Your task to perform on an android device: Open Wikipedia Image 0: 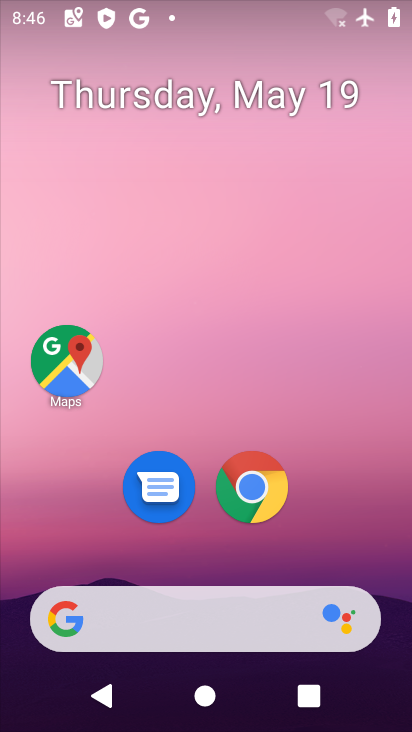
Step 0: click (247, 504)
Your task to perform on an android device: Open Wikipedia Image 1: 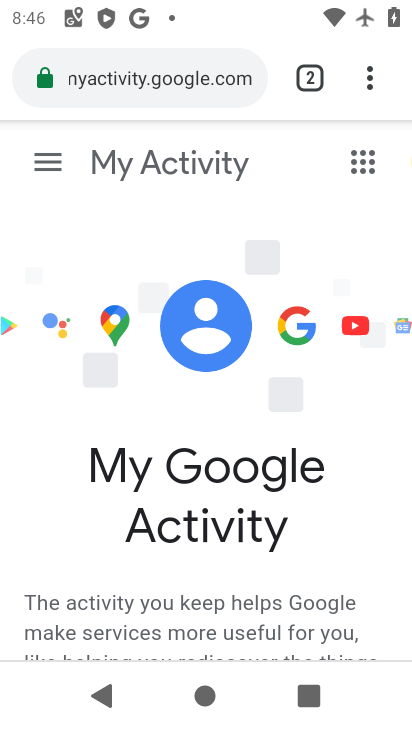
Step 1: click (303, 97)
Your task to perform on an android device: Open Wikipedia Image 2: 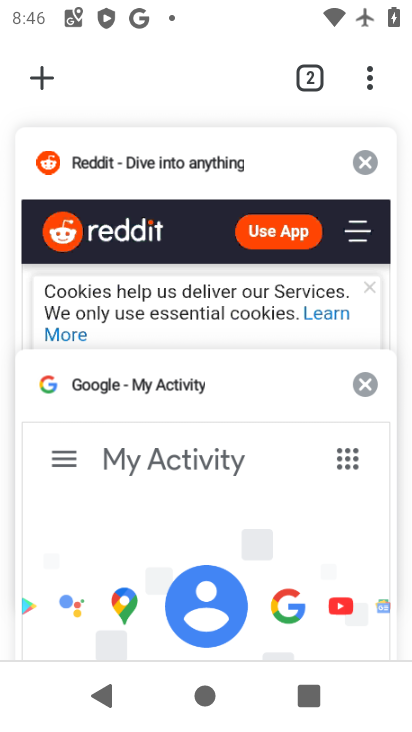
Step 2: click (49, 73)
Your task to perform on an android device: Open Wikipedia Image 3: 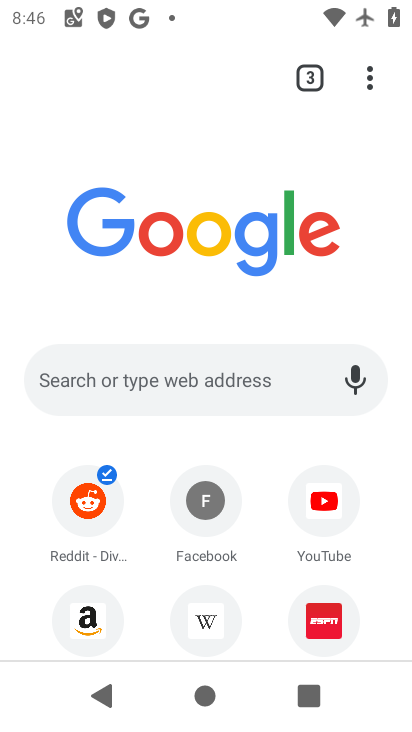
Step 3: click (217, 612)
Your task to perform on an android device: Open Wikipedia Image 4: 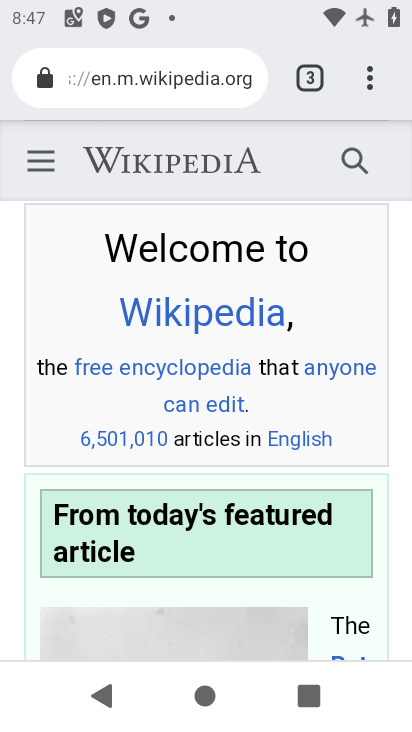
Step 4: task complete